Your task to perform on an android device: Open Chrome and go to settings Image 0: 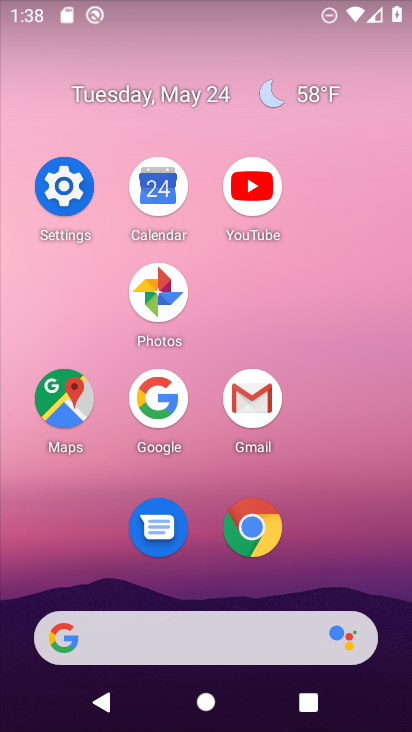
Step 0: click (257, 547)
Your task to perform on an android device: Open Chrome and go to settings Image 1: 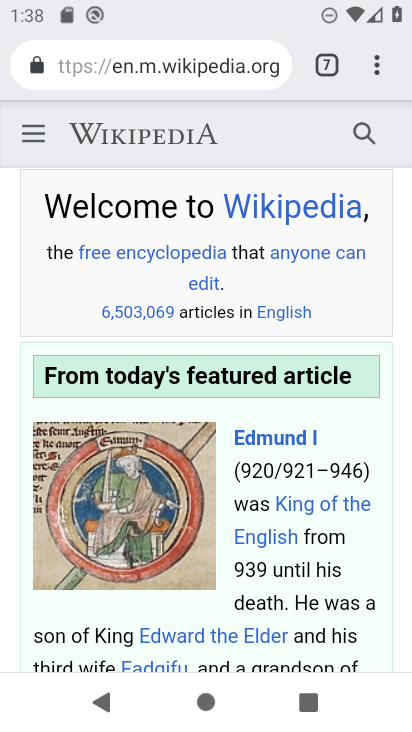
Step 1: click (379, 73)
Your task to perform on an android device: Open Chrome and go to settings Image 2: 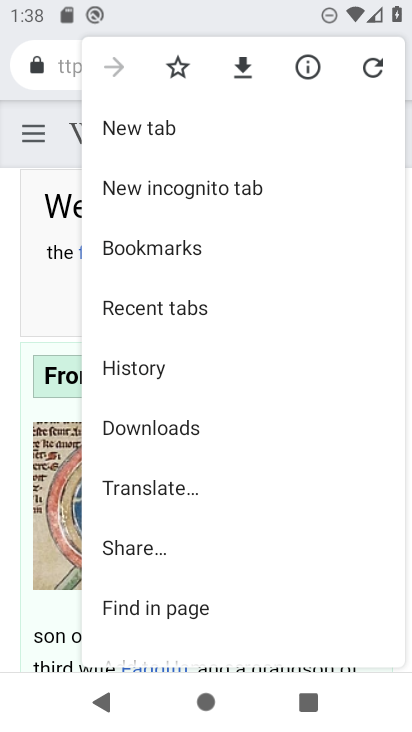
Step 2: drag from (189, 518) to (208, 185)
Your task to perform on an android device: Open Chrome and go to settings Image 3: 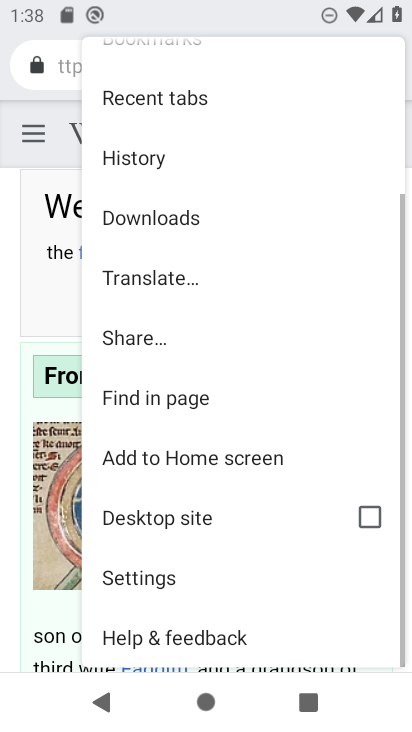
Step 3: click (151, 555)
Your task to perform on an android device: Open Chrome and go to settings Image 4: 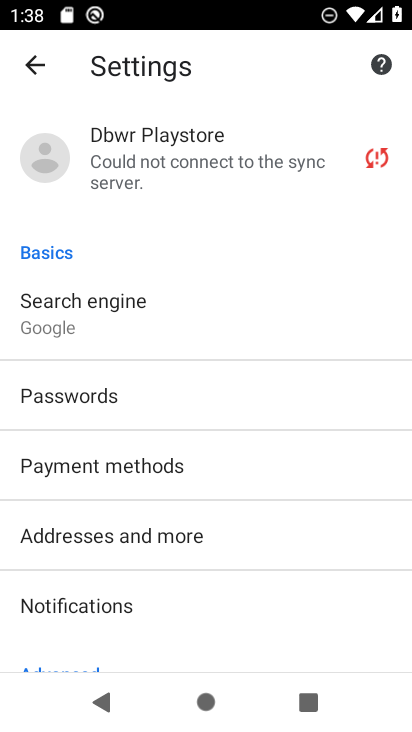
Step 4: task complete